Your task to perform on an android device: turn on location history Image 0: 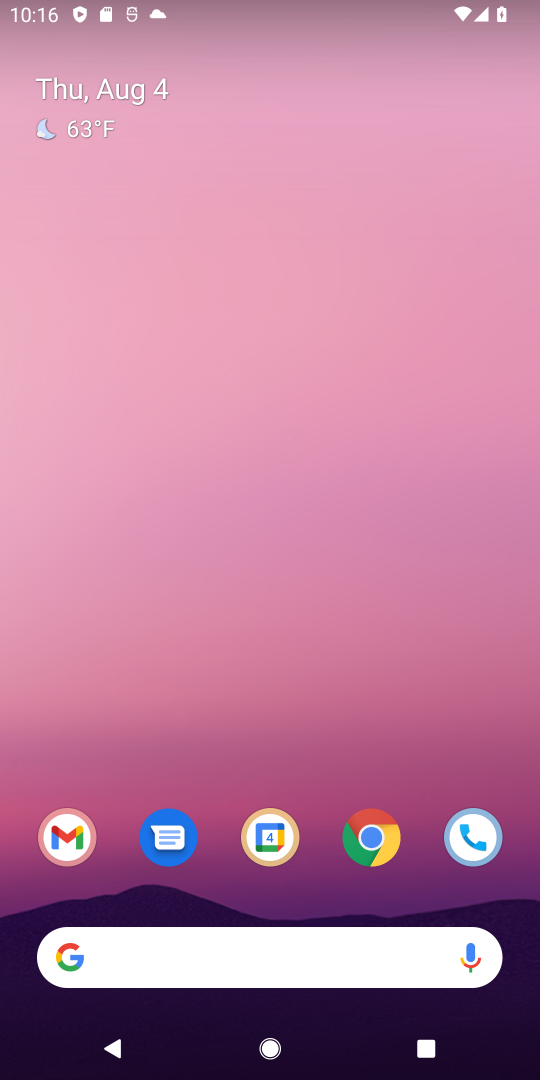
Step 0: press home button
Your task to perform on an android device: turn on location history Image 1: 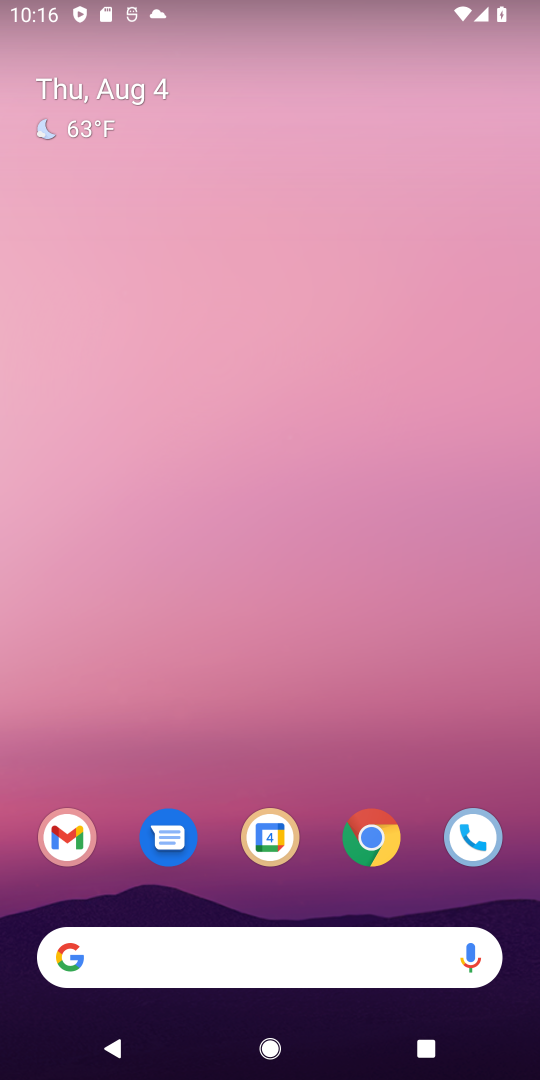
Step 1: drag from (310, 899) to (325, 112)
Your task to perform on an android device: turn on location history Image 2: 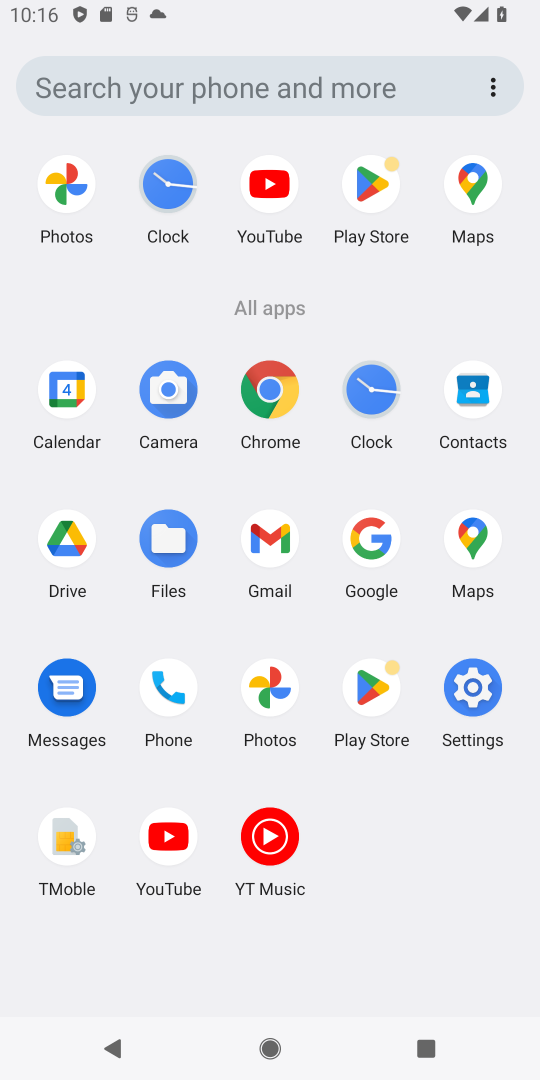
Step 2: click (471, 685)
Your task to perform on an android device: turn on location history Image 3: 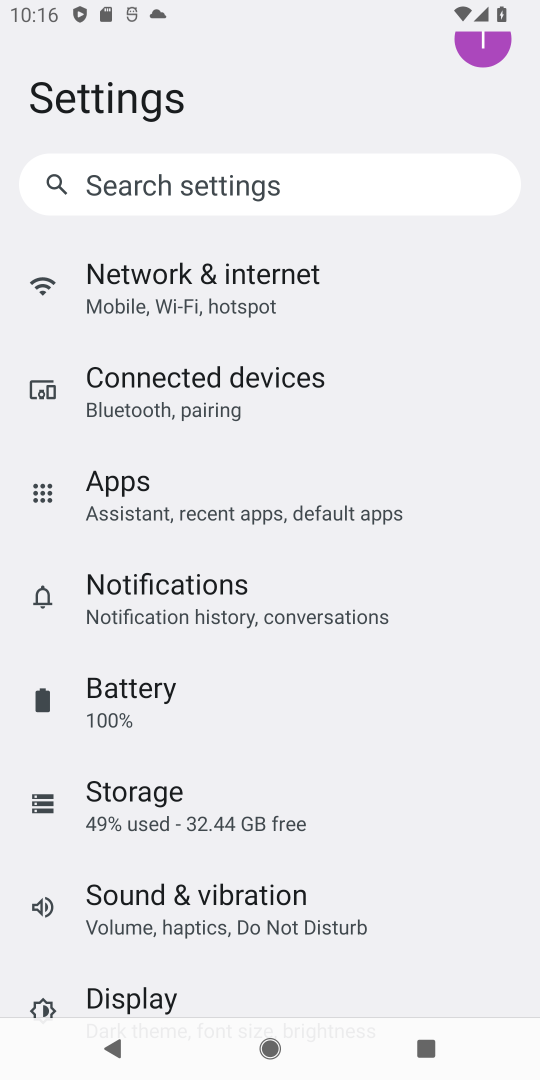
Step 3: drag from (239, 950) to (313, 141)
Your task to perform on an android device: turn on location history Image 4: 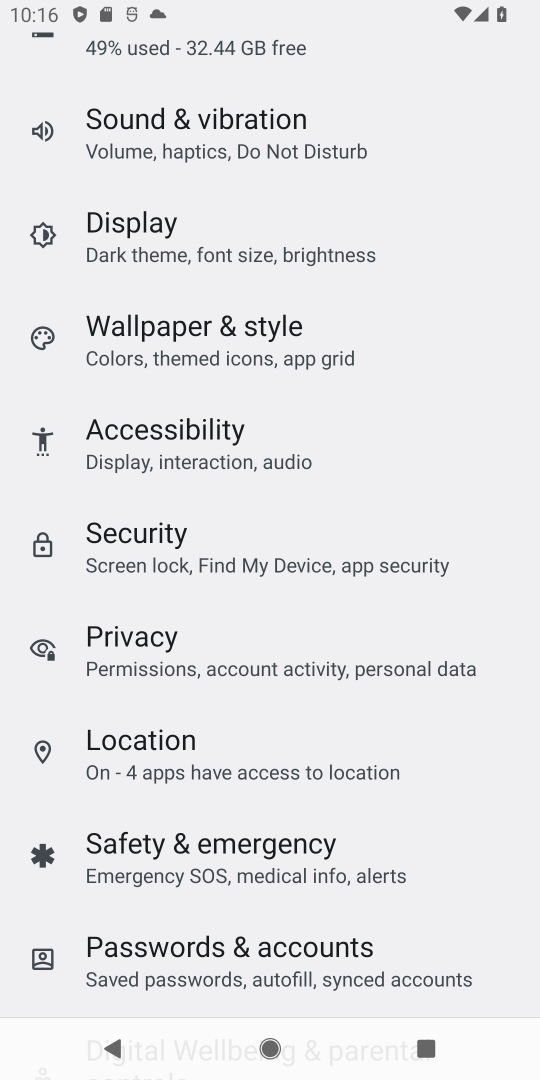
Step 4: click (223, 747)
Your task to perform on an android device: turn on location history Image 5: 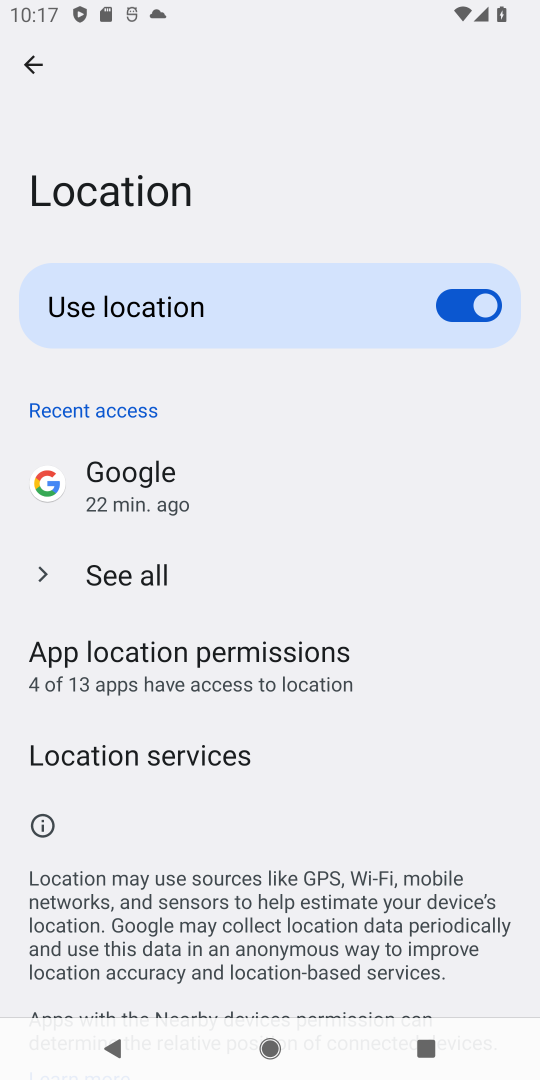
Step 5: click (89, 751)
Your task to perform on an android device: turn on location history Image 6: 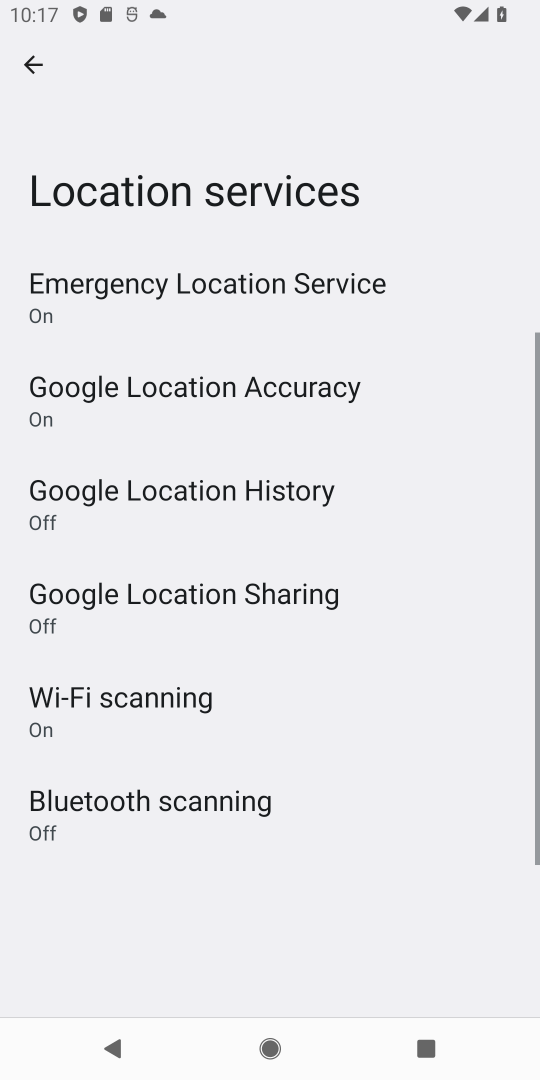
Step 6: click (345, 492)
Your task to perform on an android device: turn on location history Image 7: 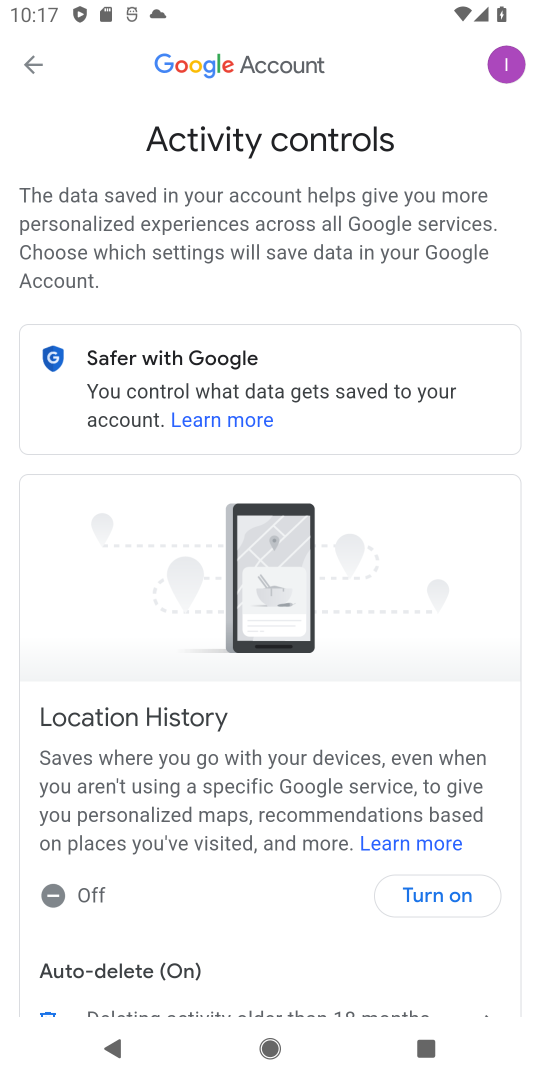
Step 7: click (456, 894)
Your task to perform on an android device: turn on location history Image 8: 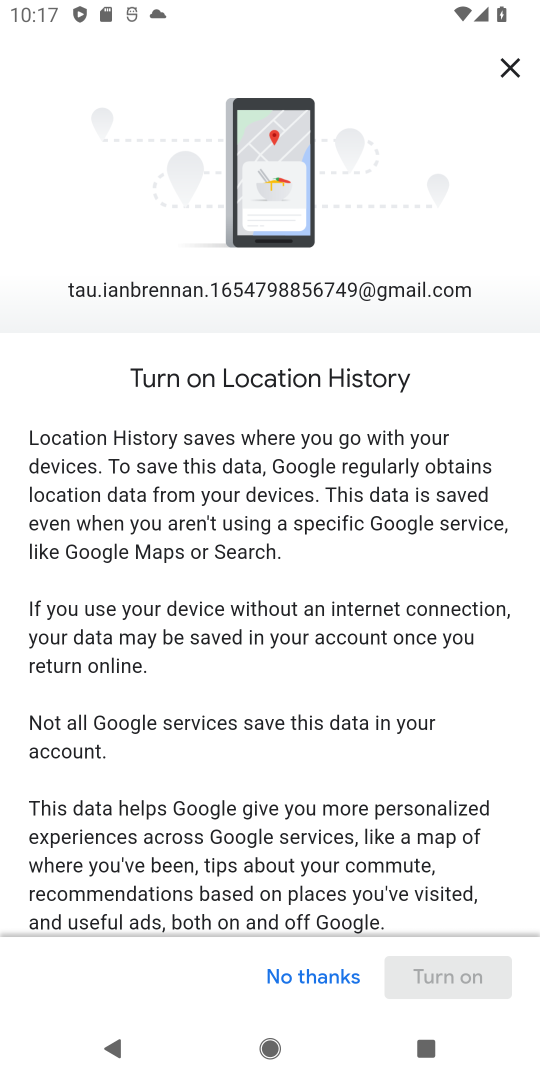
Step 8: drag from (376, 893) to (369, 214)
Your task to perform on an android device: turn on location history Image 9: 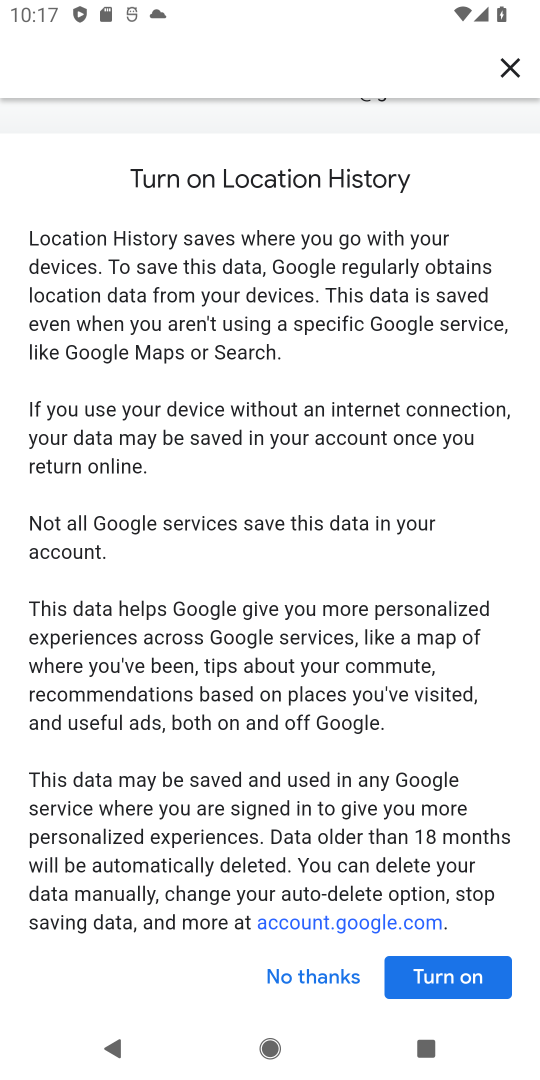
Step 9: click (456, 975)
Your task to perform on an android device: turn on location history Image 10: 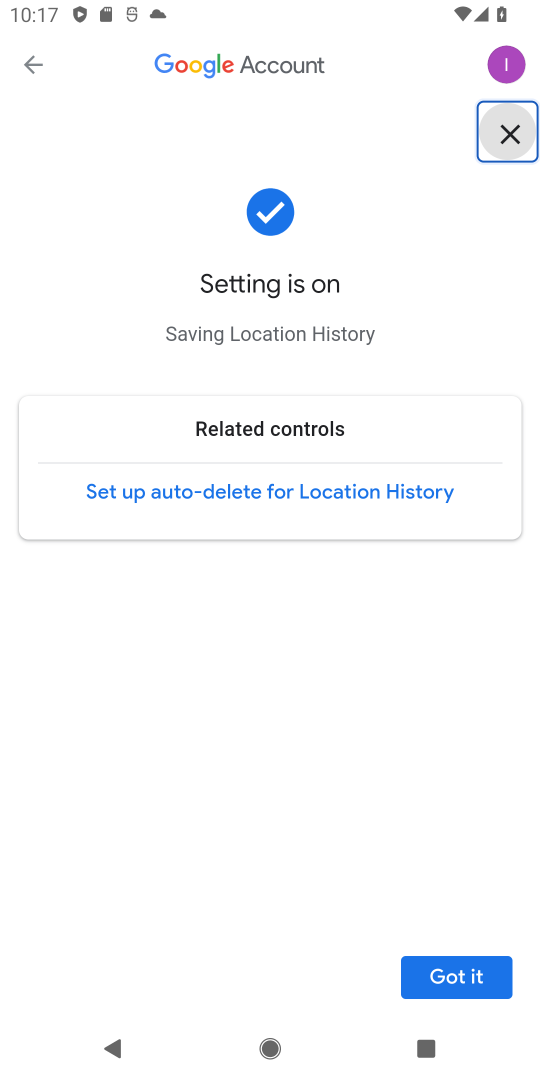
Step 10: click (452, 969)
Your task to perform on an android device: turn on location history Image 11: 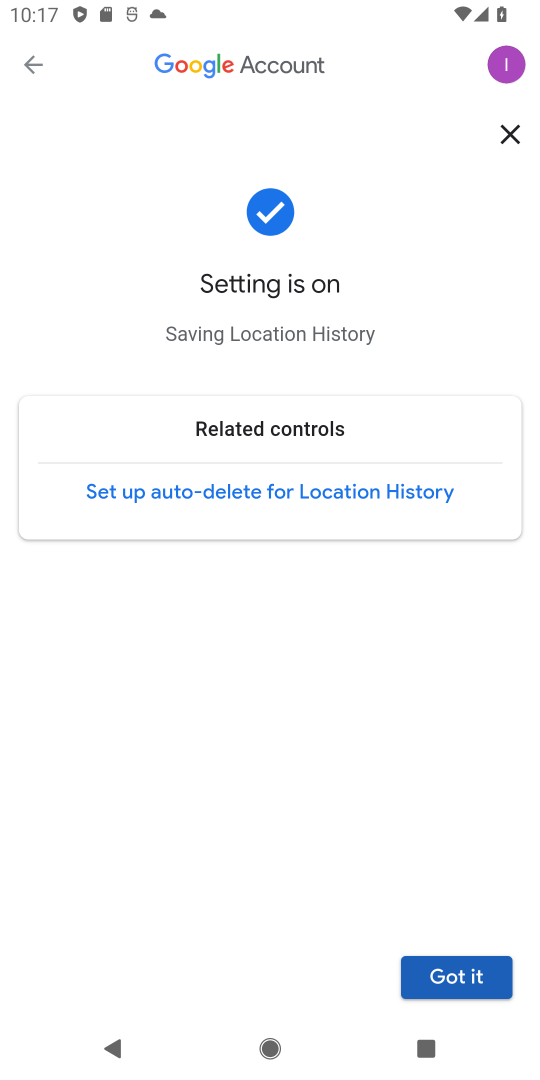
Step 11: task complete